Your task to perform on an android device: turn on bluetooth scan Image 0: 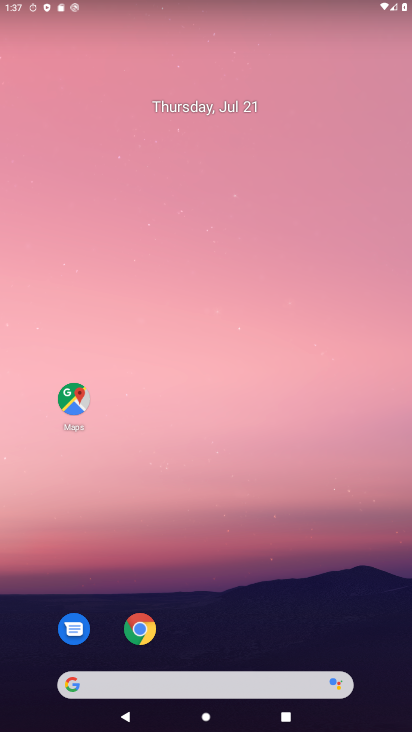
Step 0: drag from (22, 696) to (270, 517)
Your task to perform on an android device: turn on bluetooth scan Image 1: 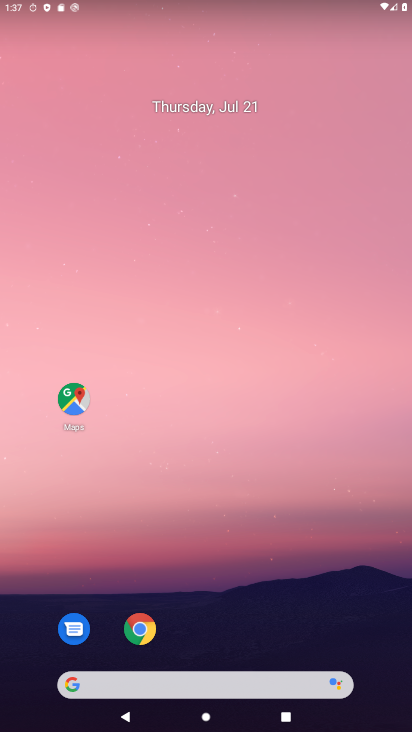
Step 1: drag from (22, 682) to (268, 41)
Your task to perform on an android device: turn on bluetooth scan Image 2: 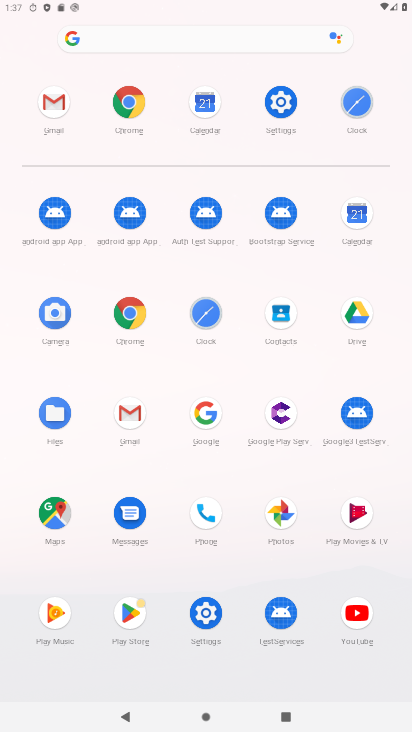
Step 2: click (201, 612)
Your task to perform on an android device: turn on bluetooth scan Image 3: 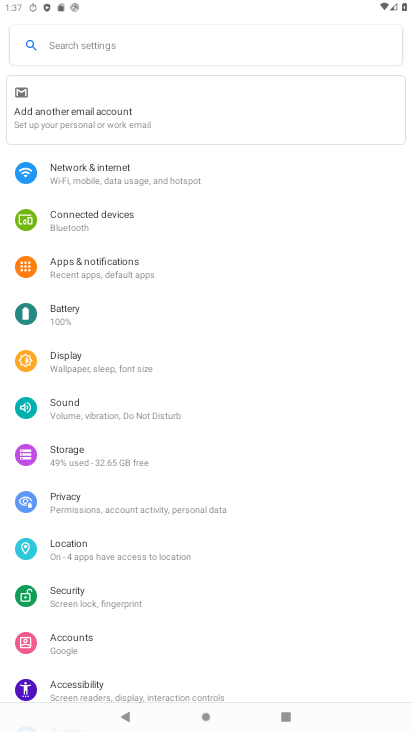
Step 3: click (78, 173)
Your task to perform on an android device: turn on bluetooth scan Image 4: 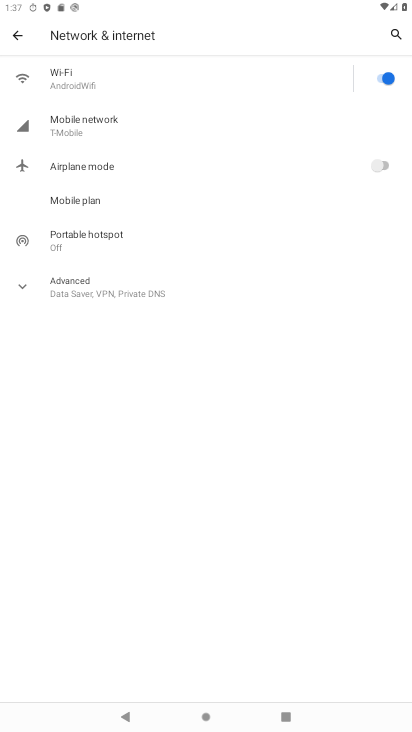
Step 4: click (13, 18)
Your task to perform on an android device: turn on bluetooth scan Image 5: 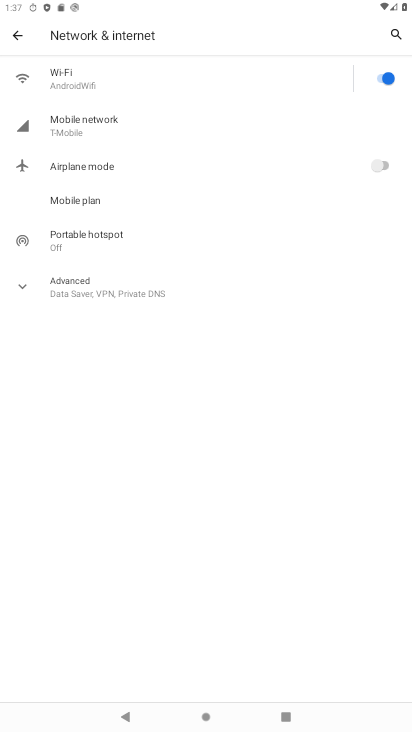
Step 5: click (15, 29)
Your task to perform on an android device: turn on bluetooth scan Image 6: 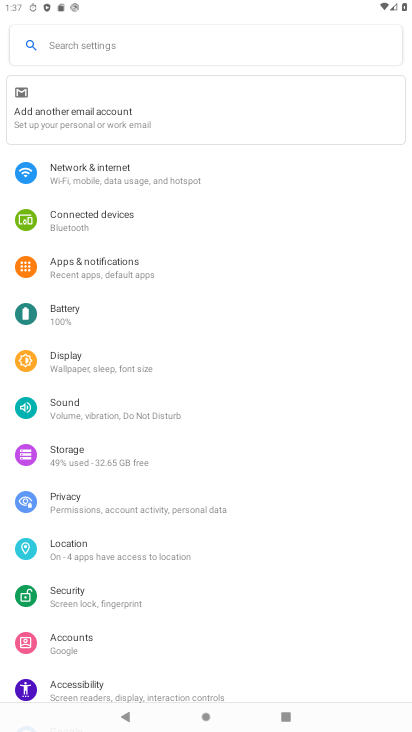
Step 6: click (86, 224)
Your task to perform on an android device: turn on bluetooth scan Image 7: 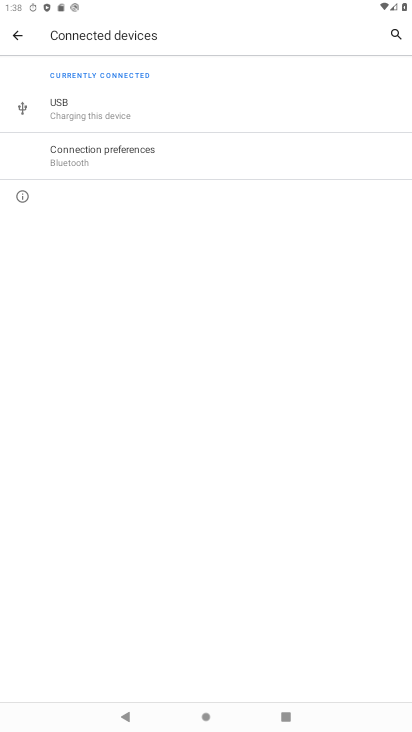
Step 7: task complete